Your task to perform on an android device: stop showing notifications on the lock screen Image 0: 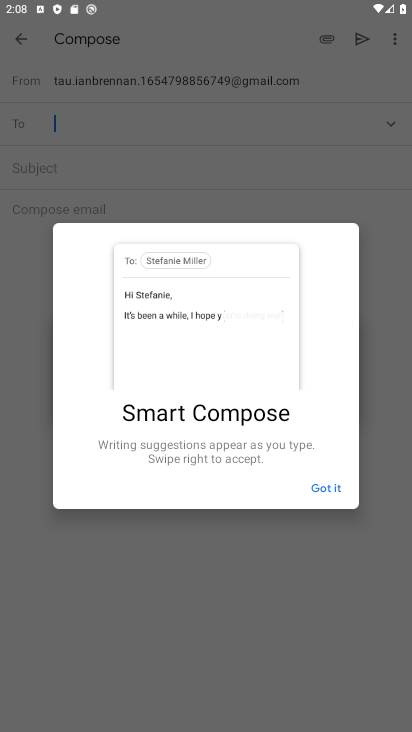
Step 0: press back button
Your task to perform on an android device: stop showing notifications on the lock screen Image 1: 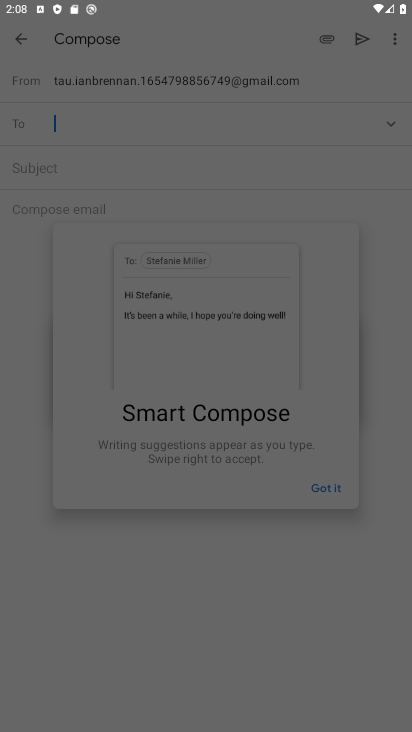
Step 1: press back button
Your task to perform on an android device: stop showing notifications on the lock screen Image 2: 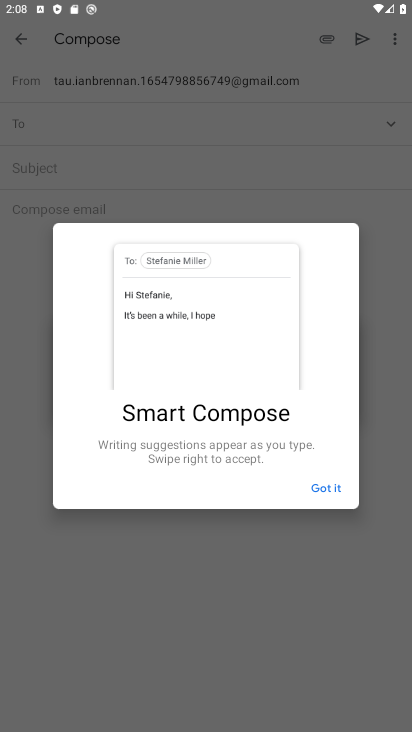
Step 2: click (309, 486)
Your task to perform on an android device: stop showing notifications on the lock screen Image 3: 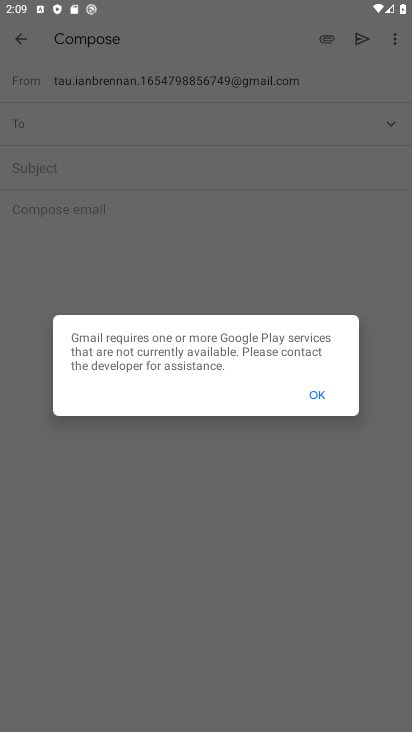
Step 3: click (311, 386)
Your task to perform on an android device: stop showing notifications on the lock screen Image 4: 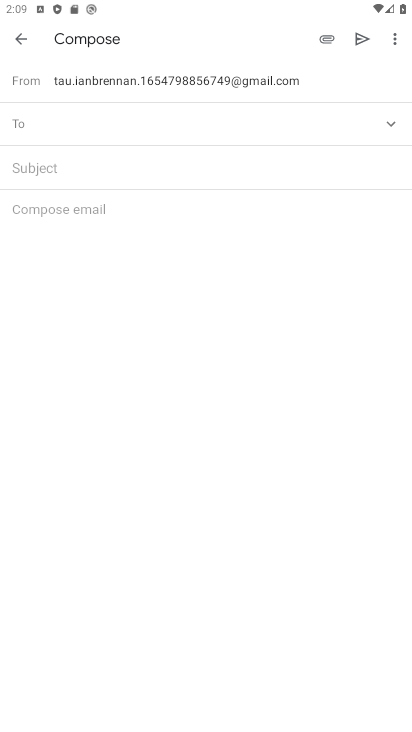
Step 4: click (29, 30)
Your task to perform on an android device: stop showing notifications on the lock screen Image 5: 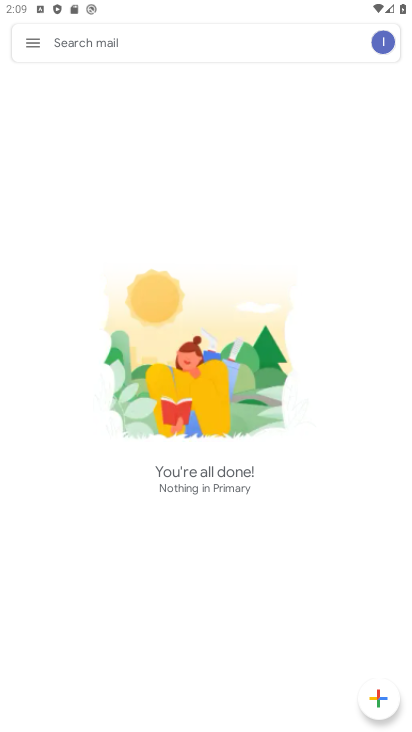
Step 5: press back button
Your task to perform on an android device: stop showing notifications on the lock screen Image 6: 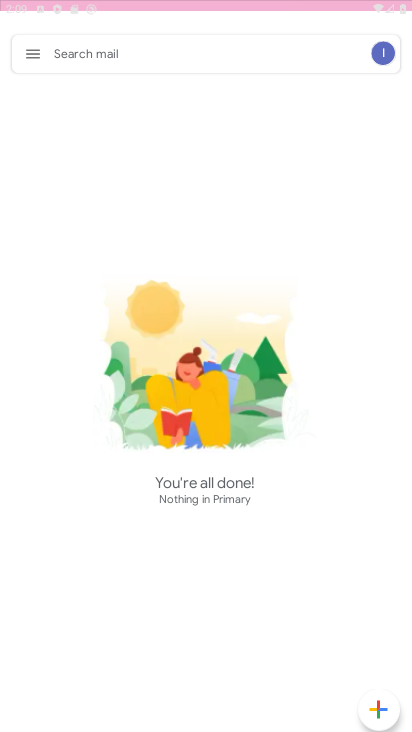
Step 6: press back button
Your task to perform on an android device: stop showing notifications on the lock screen Image 7: 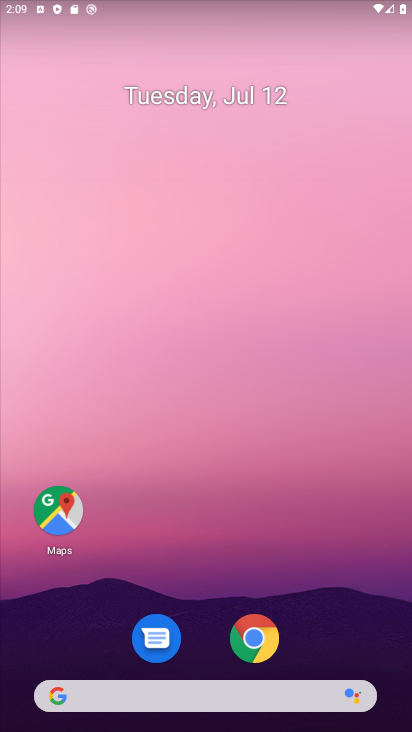
Step 7: drag from (191, 572) to (277, 5)
Your task to perform on an android device: stop showing notifications on the lock screen Image 8: 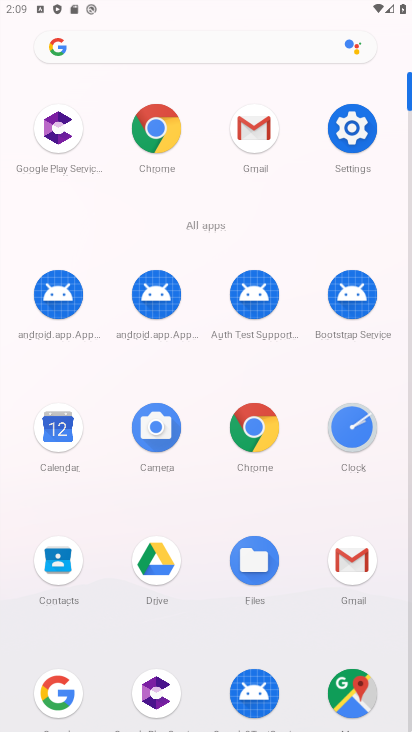
Step 8: click (351, 122)
Your task to perform on an android device: stop showing notifications on the lock screen Image 9: 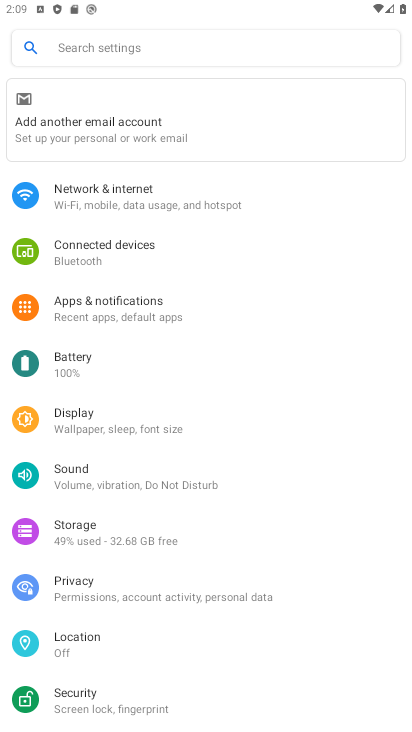
Step 9: click (185, 309)
Your task to perform on an android device: stop showing notifications on the lock screen Image 10: 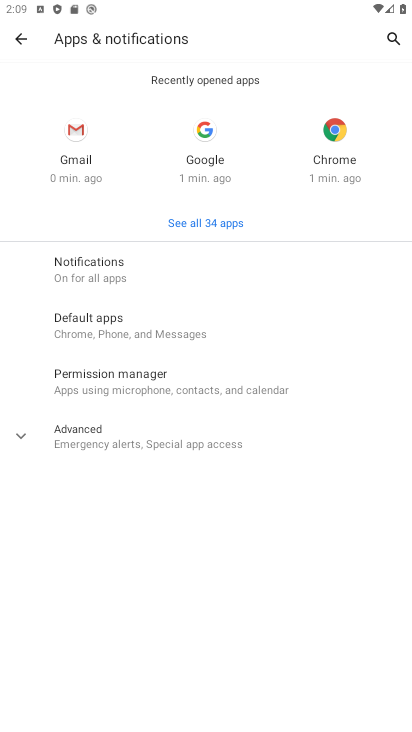
Step 10: click (121, 256)
Your task to perform on an android device: stop showing notifications on the lock screen Image 11: 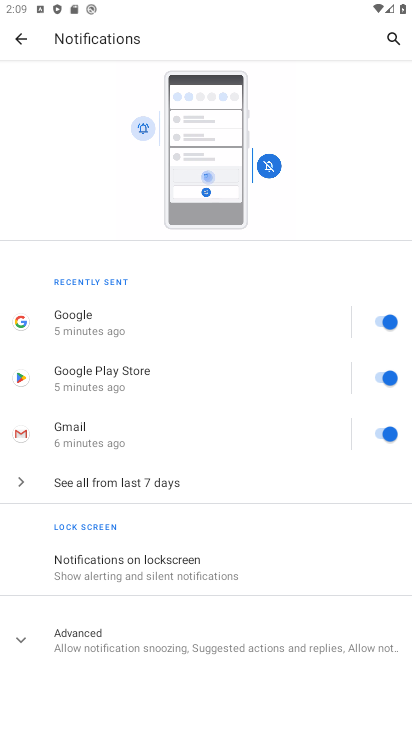
Step 11: click (189, 568)
Your task to perform on an android device: stop showing notifications on the lock screen Image 12: 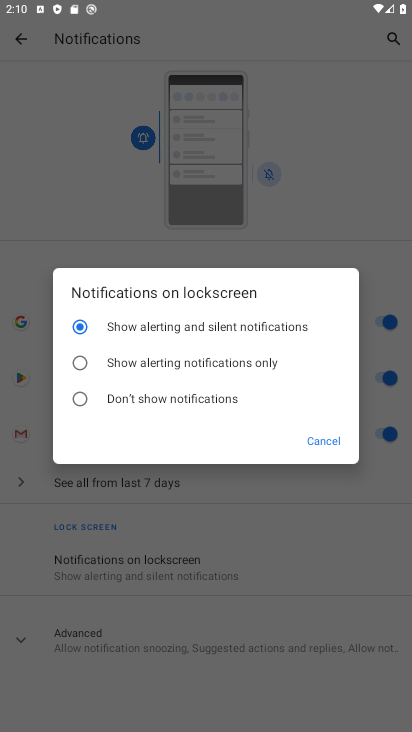
Step 12: click (90, 395)
Your task to perform on an android device: stop showing notifications on the lock screen Image 13: 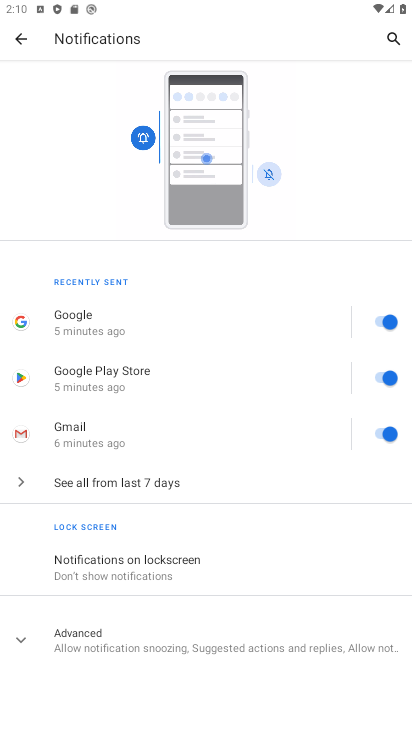
Step 13: task complete